Your task to perform on an android device: open app "Upside-Cash back on gas & food" Image 0: 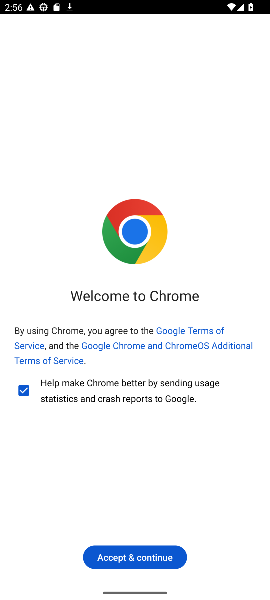
Step 0: press home button
Your task to perform on an android device: open app "Upside-Cash back on gas & food" Image 1: 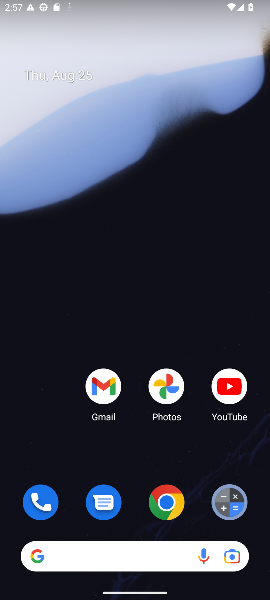
Step 1: drag from (135, 531) to (147, 112)
Your task to perform on an android device: open app "Upside-Cash back on gas & food" Image 2: 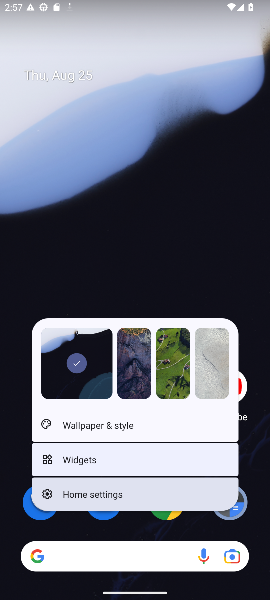
Step 2: click (147, 112)
Your task to perform on an android device: open app "Upside-Cash back on gas & food" Image 3: 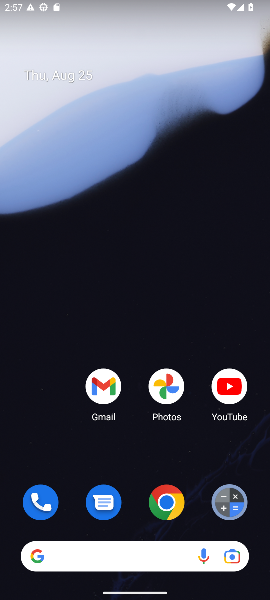
Step 3: drag from (143, 528) to (208, 63)
Your task to perform on an android device: open app "Upside-Cash back on gas & food" Image 4: 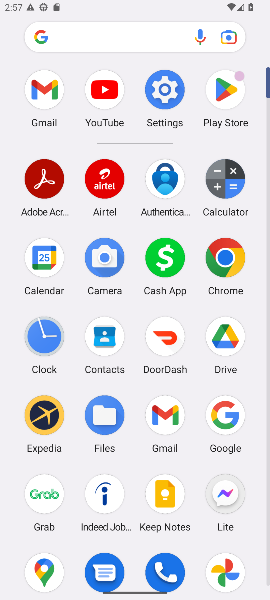
Step 4: click (220, 80)
Your task to perform on an android device: open app "Upside-Cash back on gas & food" Image 5: 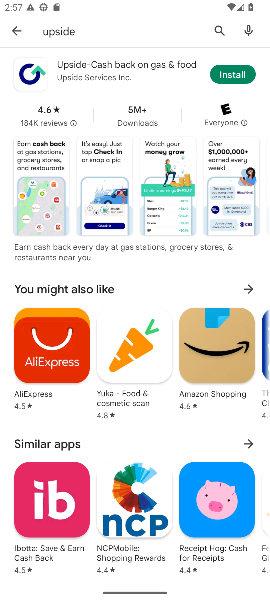
Step 5: click (223, 32)
Your task to perform on an android device: open app "Upside-Cash back on gas & food" Image 6: 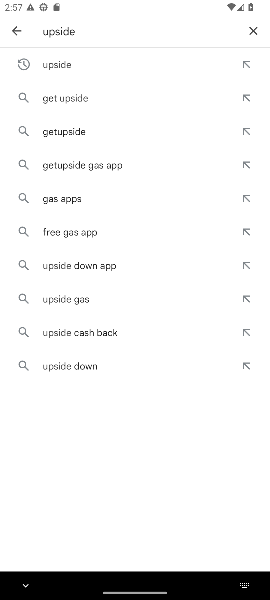
Step 6: click (247, 32)
Your task to perform on an android device: open app "Upside-Cash back on gas & food" Image 7: 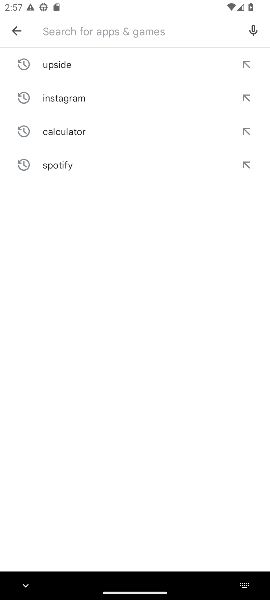
Step 7: type "upside"
Your task to perform on an android device: open app "Upside-Cash back on gas & food" Image 8: 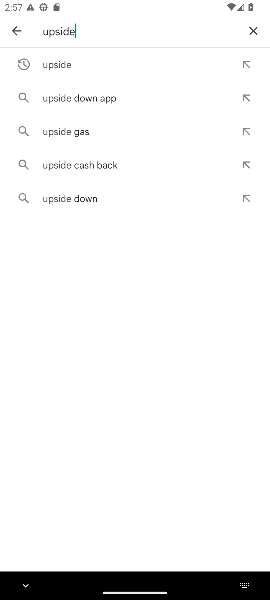
Step 8: click (102, 59)
Your task to perform on an android device: open app "Upside-Cash back on gas & food" Image 9: 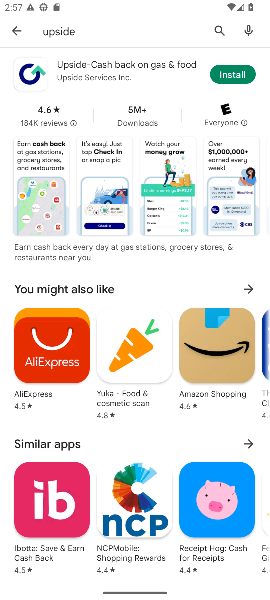
Step 9: click (233, 82)
Your task to perform on an android device: open app "Upside-Cash back on gas & food" Image 10: 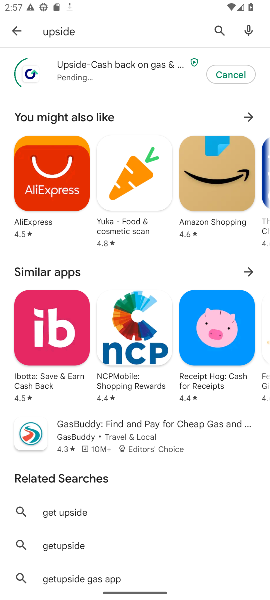
Step 10: task complete